Your task to perform on an android device: Do I have any events tomorrow? Image 0: 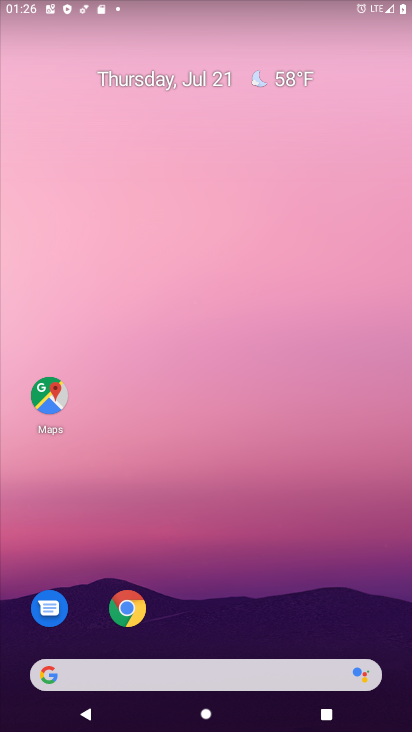
Step 0: press home button
Your task to perform on an android device: Do I have any events tomorrow? Image 1: 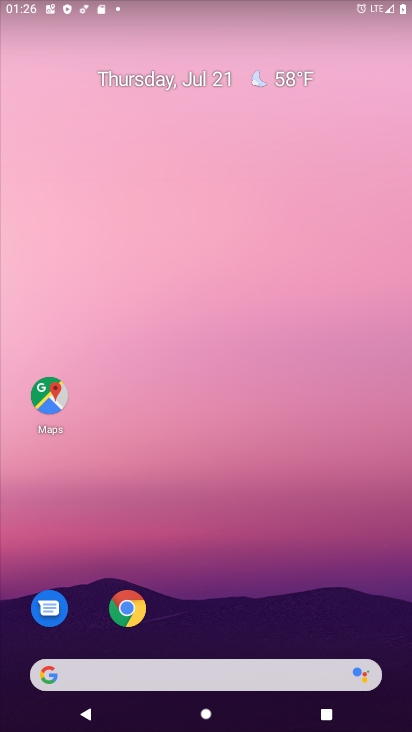
Step 1: drag from (213, 638) to (257, 0)
Your task to perform on an android device: Do I have any events tomorrow? Image 2: 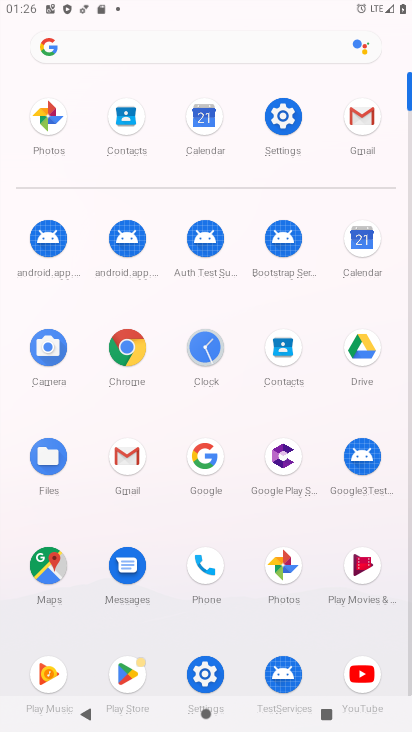
Step 2: click (365, 239)
Your task to perform on an android device: Do I have any events tomorrow? Image 3: 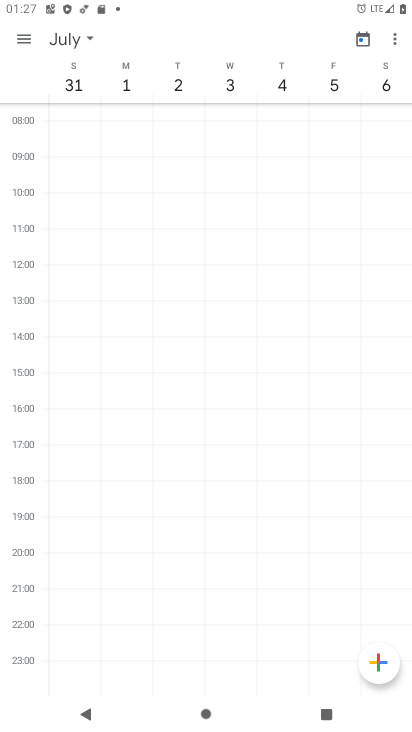
Step 3: click (89, 38)
Your task to perform on an android device: Do I have any events tomorrow? Image 4: 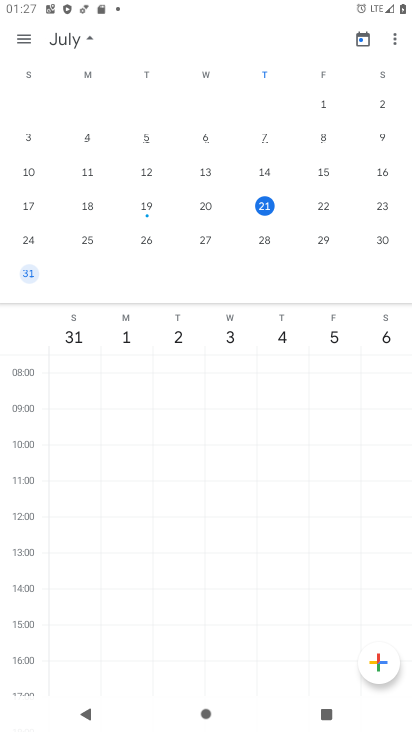
Step 4: click (318, 200)
Your task to perform on an android device: Do I have any events tomorrow? Image 5: 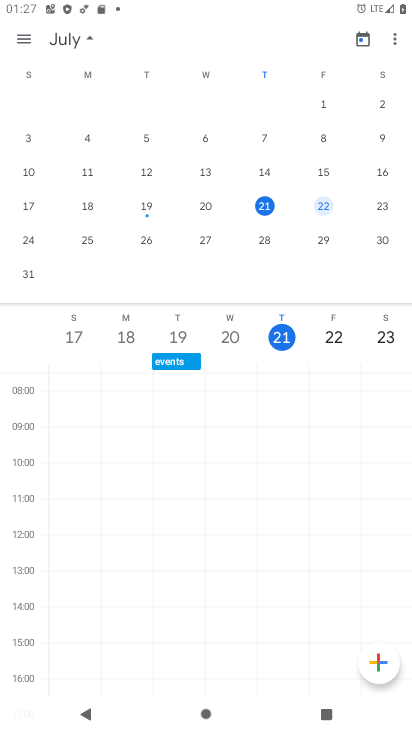
Step 5: click (335, 333)
Your task to perform on an android device: Do I have any events tomorrow? Image 6: 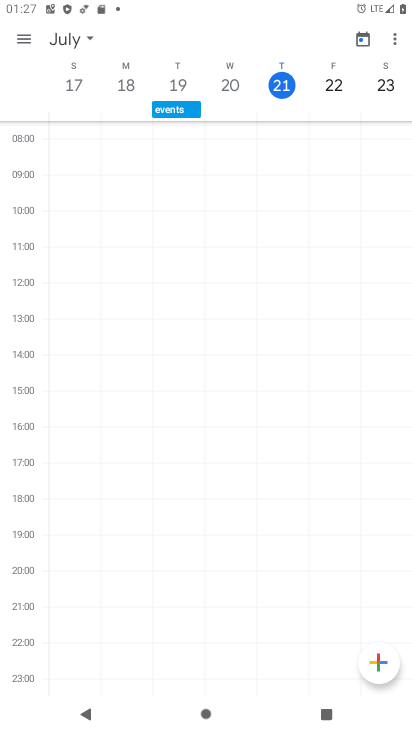
Step 6: click (335, 87)
Your task to perform on an android device: Do I have any events tomorrow? Image 7: 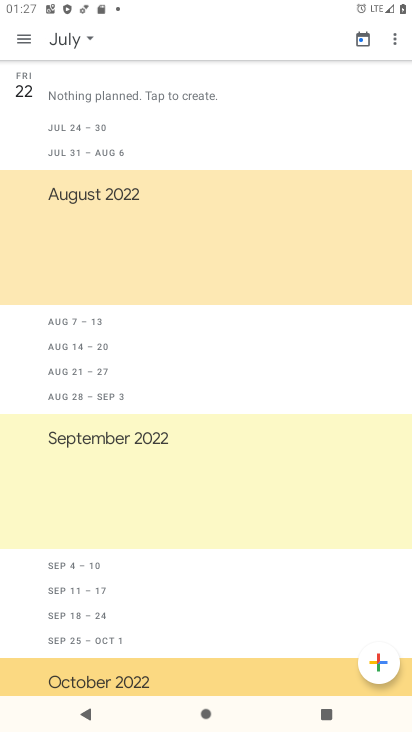
Step 7: click (31, 88)
Your task to perform on an android device: Do I have any events tomorrow? Image 8: 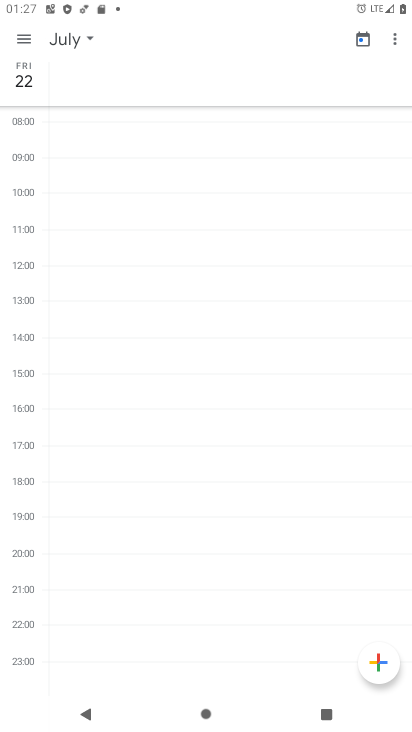
Step 8: task complete